Your task to perform on an android device: open chrome privacy settings Image 0: 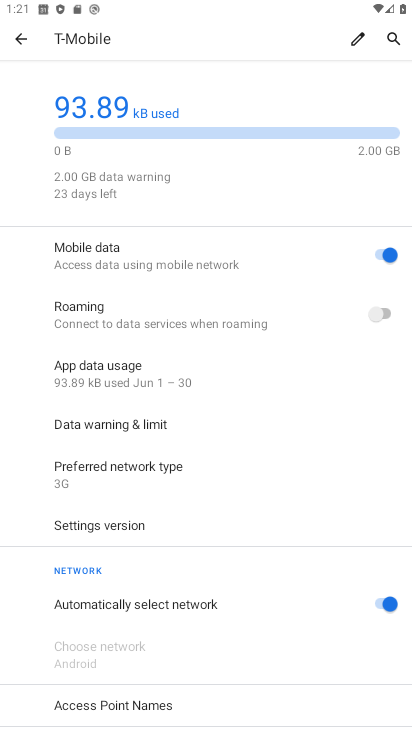
Step 0: press home button
Your task to perform on an android device: open chrome privacy settings Image 1: 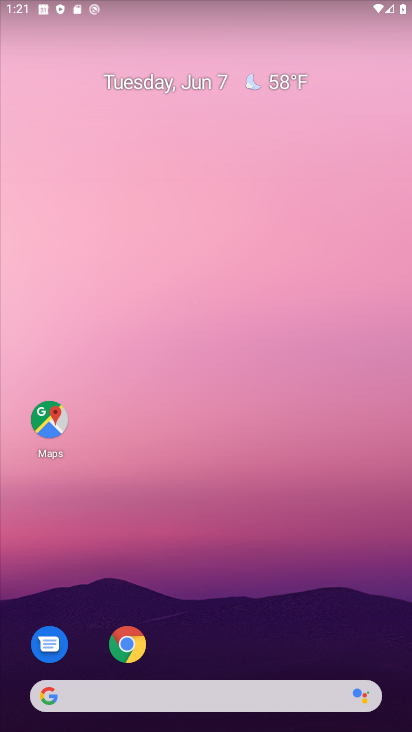
Step 1: drag from (189, 728) to (255, 165)
Your task to perform on an android device: open chrome privacy settings Image 2: 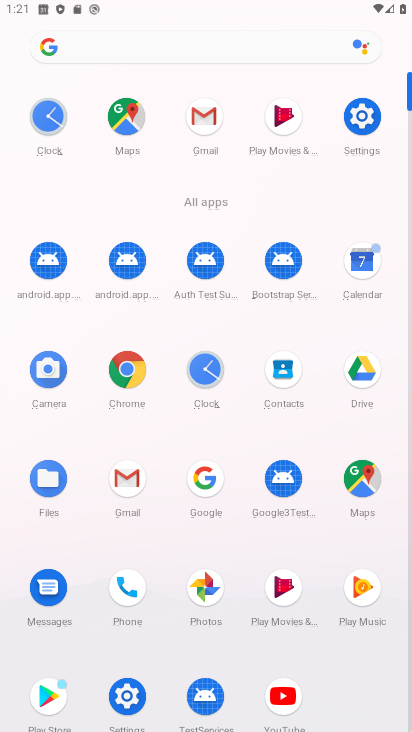
Step 2: click (377, 123)
Your task to perform on an android device: open chrome privacy settings Image 3: 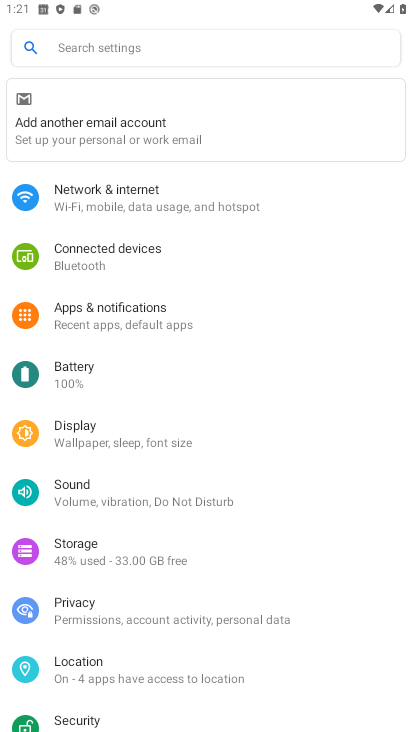
Step 3: click (116, 624)
Your task to perform on an android device: open chrome privacy settings Image 4: 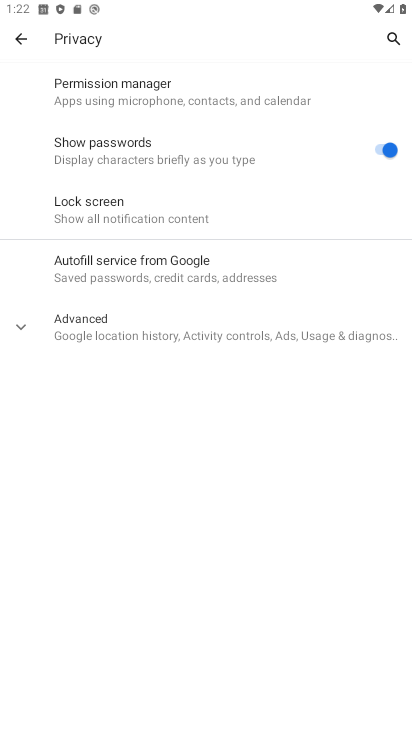
Step 4: task complete